Your task to perform on an android device: turn on sleep mode Image 0: 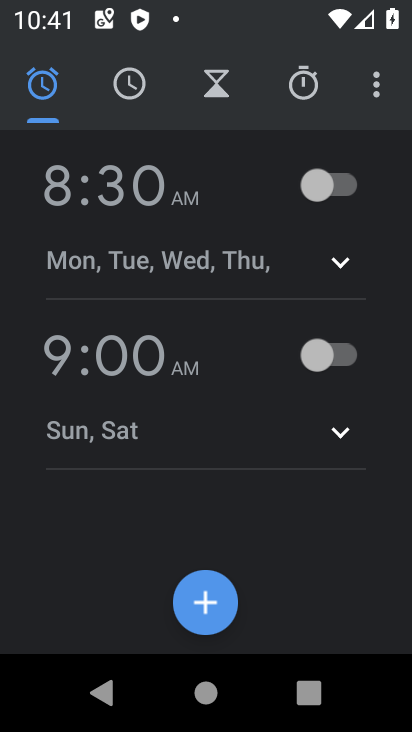
Step 0: press home button
Your task to perform on an android device: turn on sleep mode Image 1: 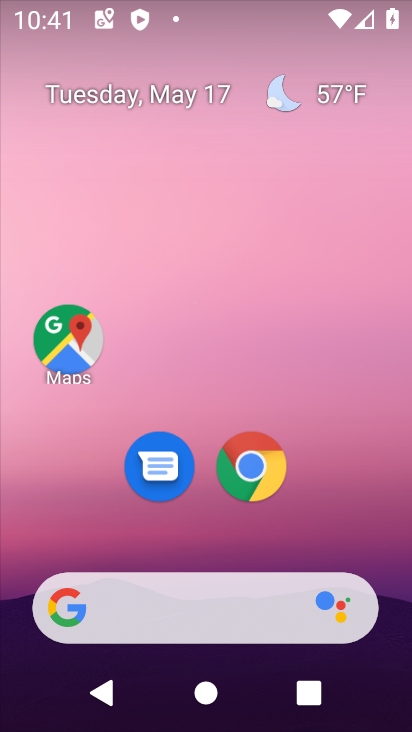
Step 1: drag from (268, 633) to (342, 112)
Your task to perform on an android device: turn on sleep mode Image 2: 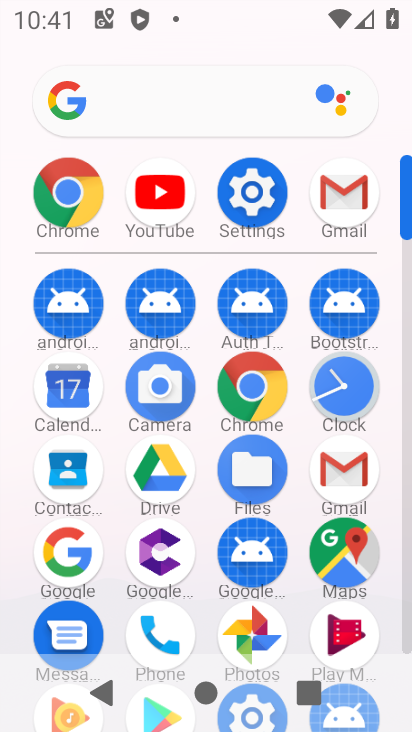
Step 2: click (249, 200)
Your task to perform on an android device: turn on sleep mode Image 3: 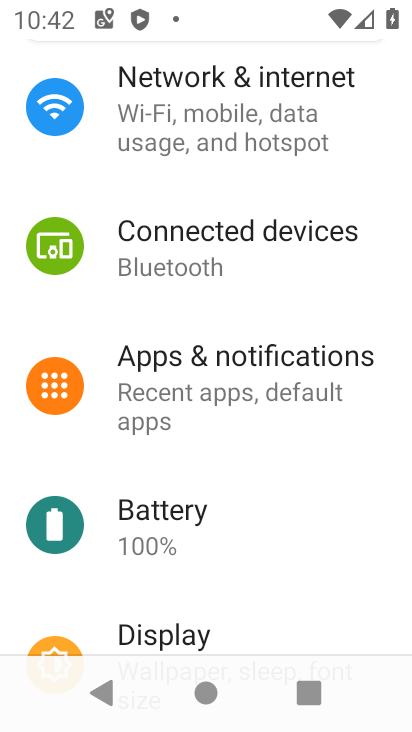
Step 3: drag from (246, 192) to (199, 372)
Your task to perform on an android device: turn on sleep mode Image 4: 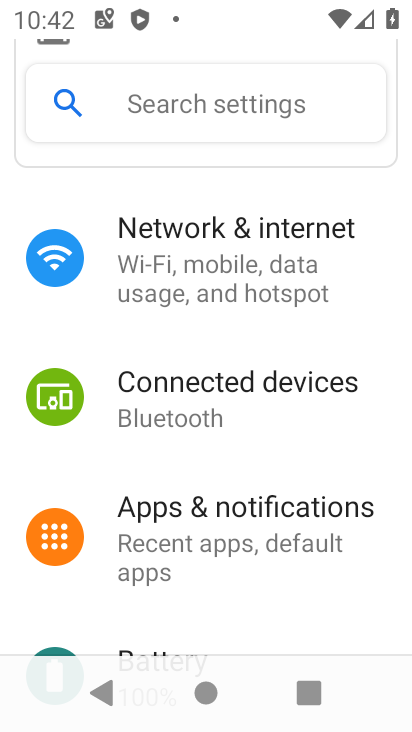
Step 4: click (168, 110)
Your task to perform on an android device: turn on sleep mode Image 5: 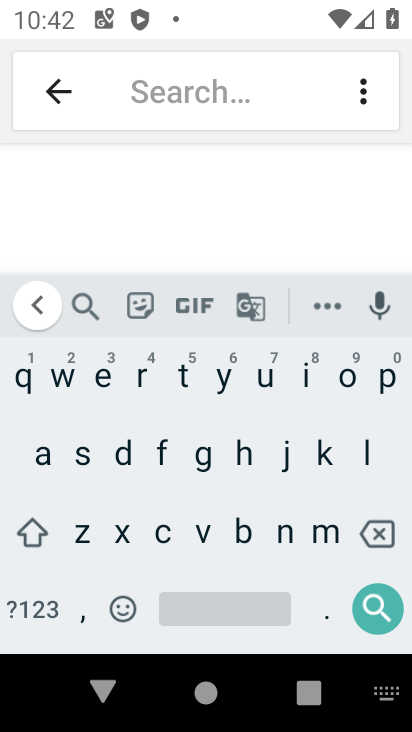
Step 5: click (85, 447)
Your task to perform on an android device: turn on sleep mode Image 6: 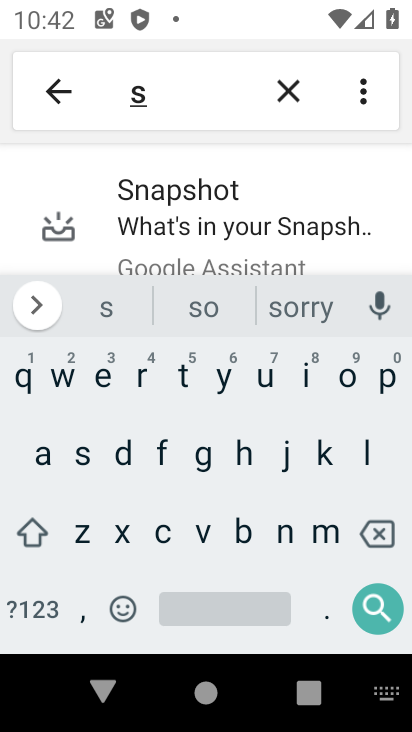
Step 6: click (374, 458)
Your task to perform on an android device: turn on sleep mode Image 7: 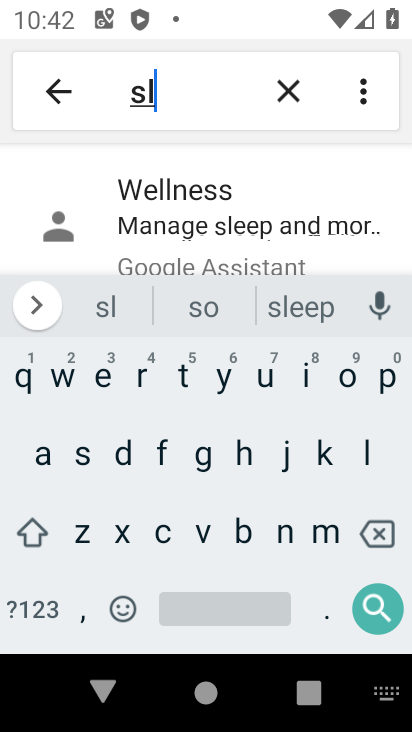
Step 7: click (106, 391)
Your task to perform on an android device: turn on sleep mode Image 8: 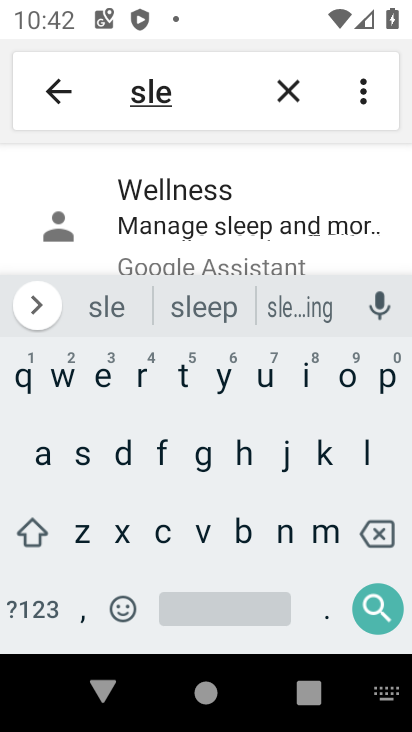
Step 8: click (213, 233)
Your task to perform on an android device: turn on sleep mode Image 9: 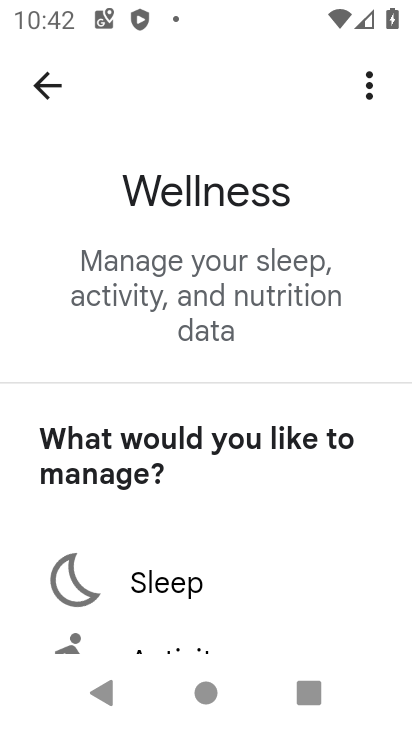
Step 9: click (153, 575)
Your task to perform on an android device: turn on sleep mode Image 10: 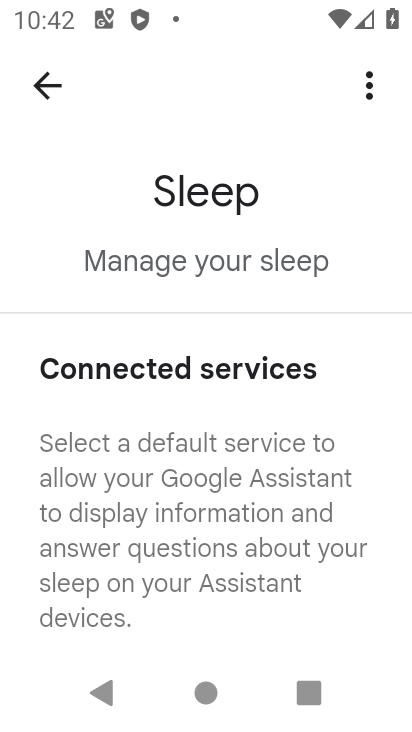
Step 10: task complete